Your task to perform on an android device: Search for sushi restaurants on Maps Image 0: 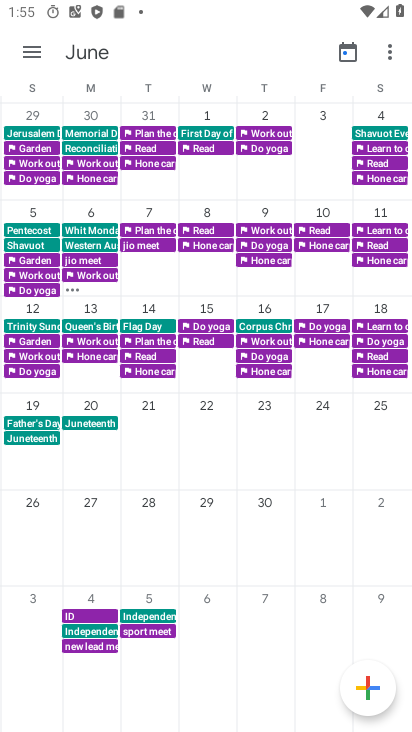
Step 0: press home button
Your task to perform on an android device: Search for sushi restaurants on Maps Image 1: 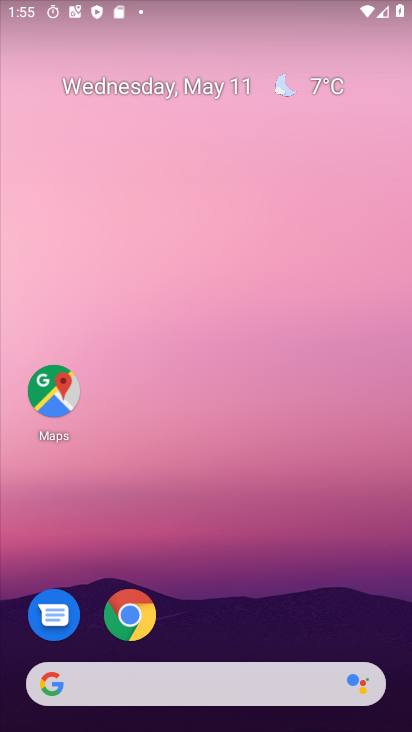
Step 1: click (34, 379)
Your task to perform on an android device: Search for sushi restaurants on Maps Image 2: 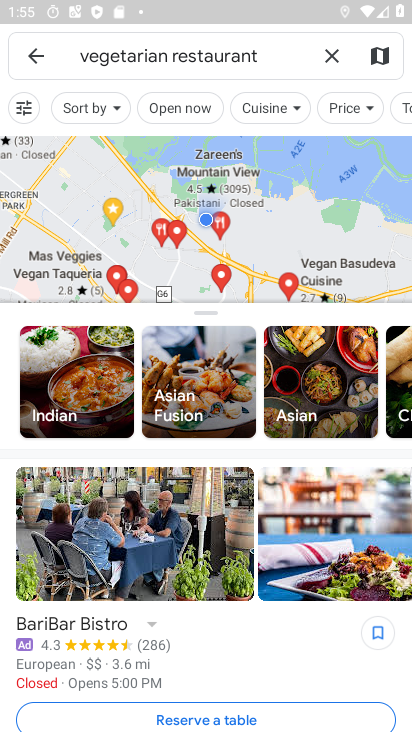
Step 2: click (329, 61)
Your task to perform on an android device: Search for sushi restaurants on Maps Image 3: 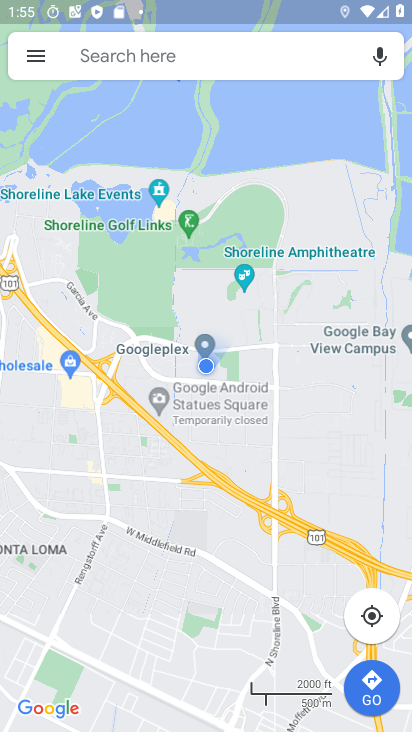
Step 3: click (211, 58)
Your task to perform on an android device: Search for sushi restaurants on Maps Image 4: 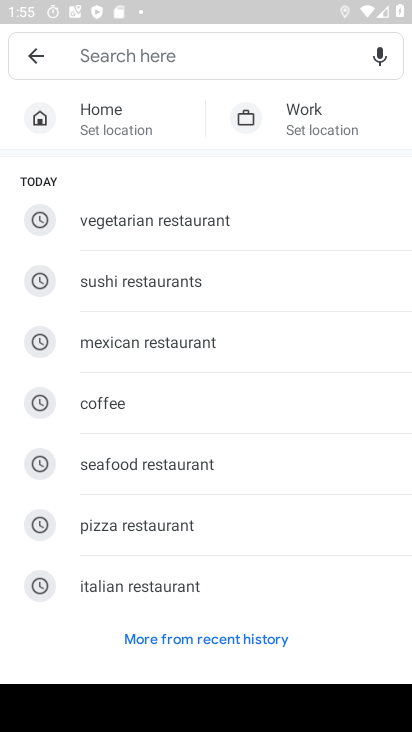
Step 4: click (132, 279)
Your task to perform on an android device: Search for sushi restaurants on Maps Image 5: 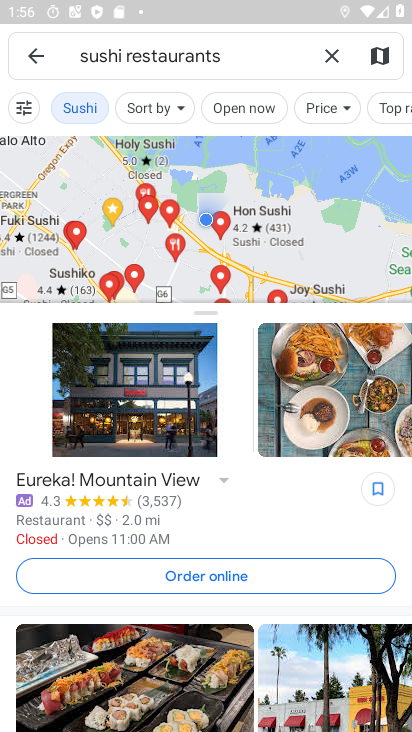
Step 5: task complete